Your task to perform on an android device: Do I have any events this weekend? Image 0: 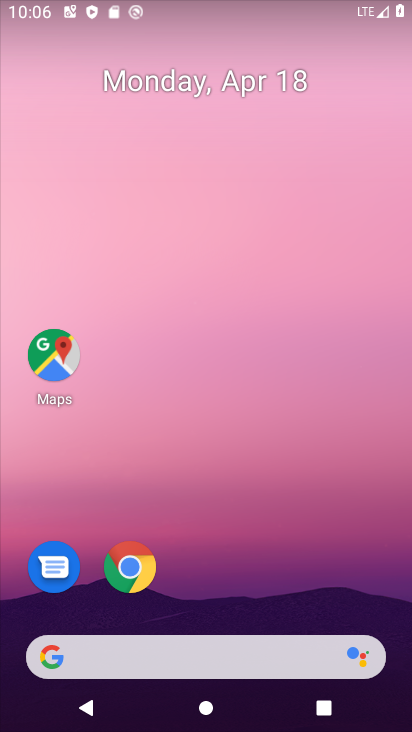
Step 0: drag from (249, 454) to (255, 194)
Your task to perform on an android device: Do I have any events this weekend? Image 1: 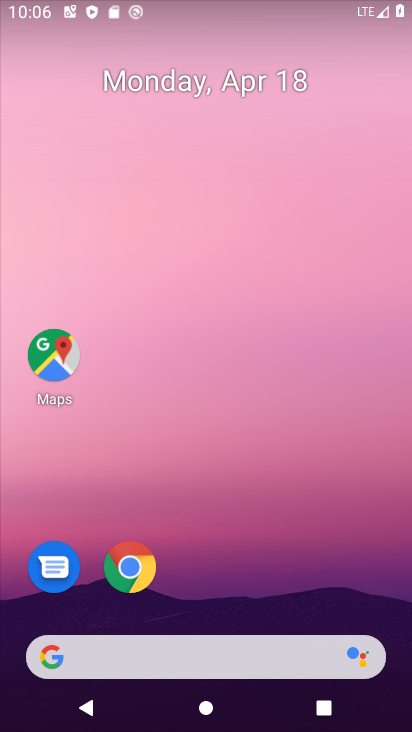
Step 1: drag from (317, 554) to (293, 95)
Your task to perform on an android device: Do I have any events this weekend? Image 2: 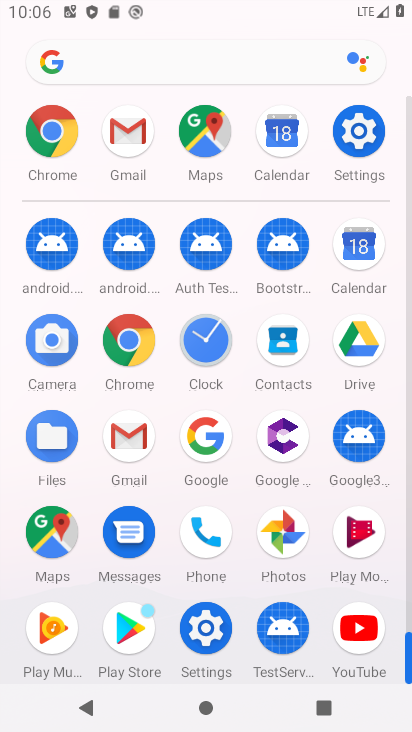
Step 2: click (361, 249)
Your task to perform on an android device: Do I have any events this weekend? Image 3: 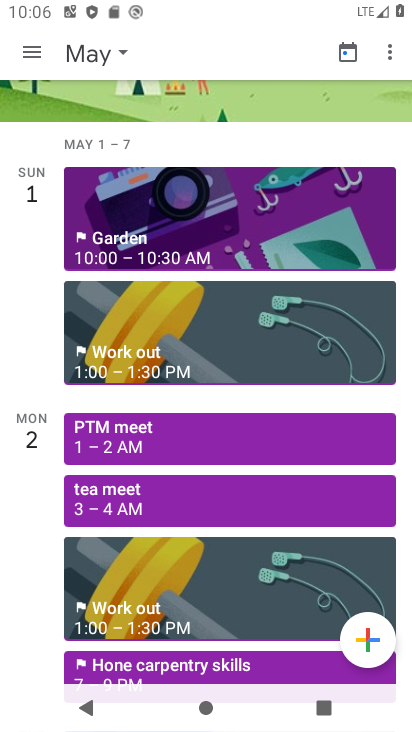
Step 3: task complete